Your task to perform on an android device: turn off wifi Image 0: 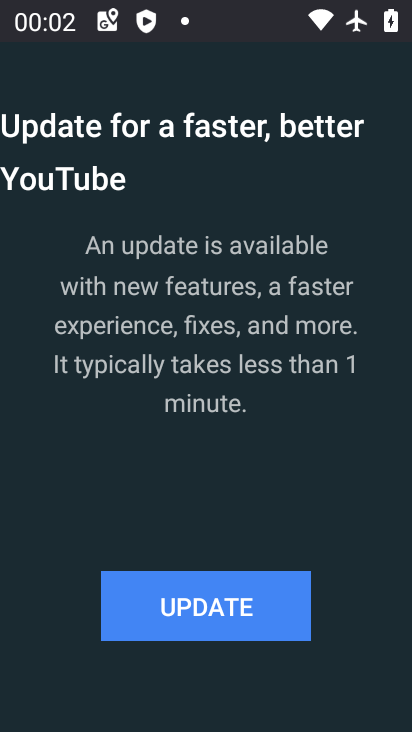
Step 0: press home button
Your task to perform on an android device: turn off wifi Image 1: 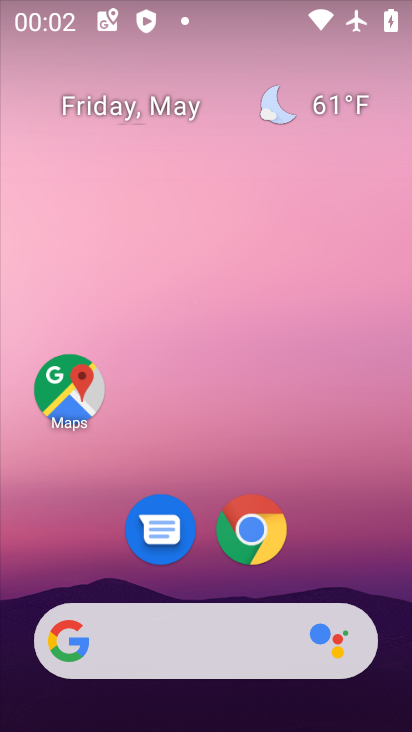
Step 1: drag from (342, 552) to (318, 104)
Your task to perform on an android device: turn off wifi Image 2: 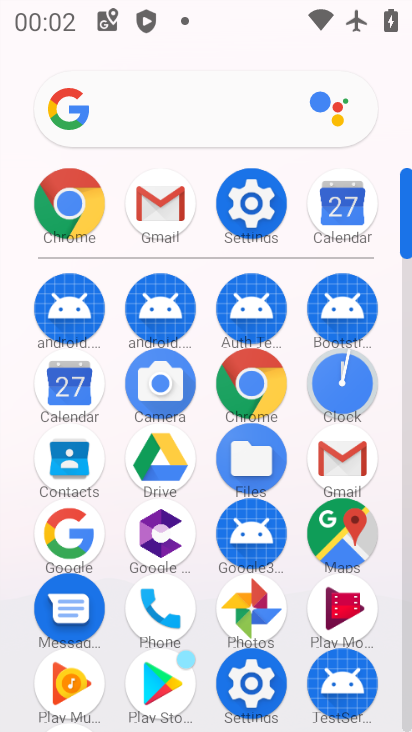
Step 2: click (261, 169)
Your task to perform on an android device: turn off wifi Image 3: 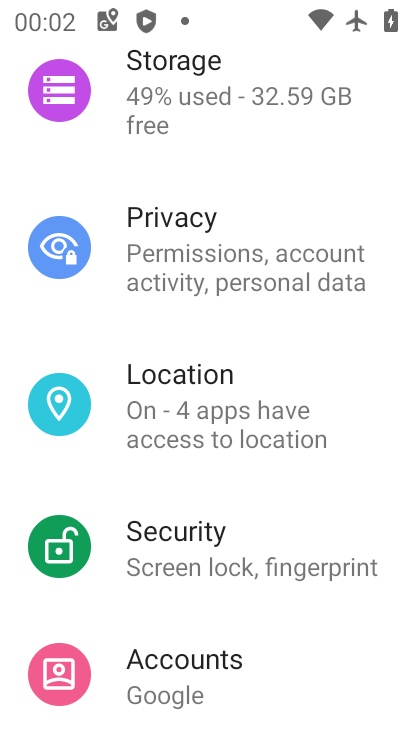
Step 3: drag from (243, 209) to (207, 680)
Your task to perform on an android device: turn off wifi Image 4: 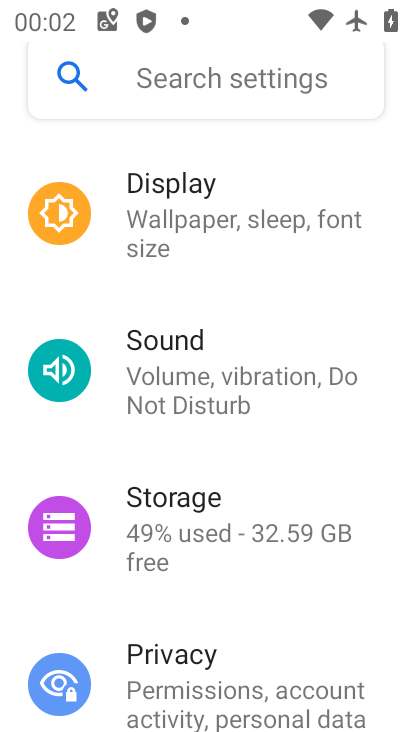
Step 4: drag from (240, 355) to (226, 670)
Your task to perform on an android device: turn off wifi Image 5: 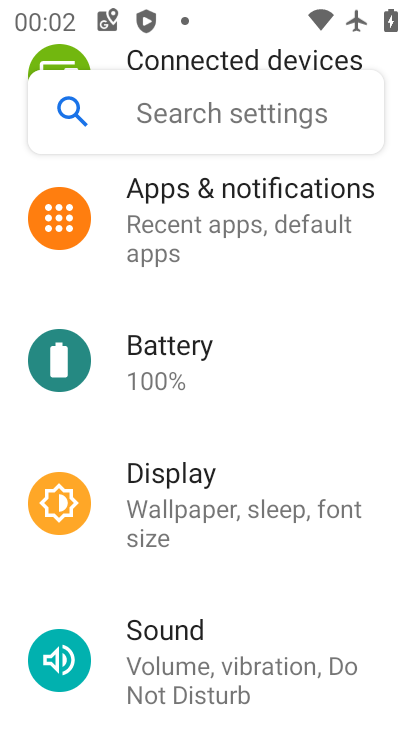
Step 5: drag from (208, 277) to (197, 714)
Your task to perform on an android device: turn off wifi Image 6: 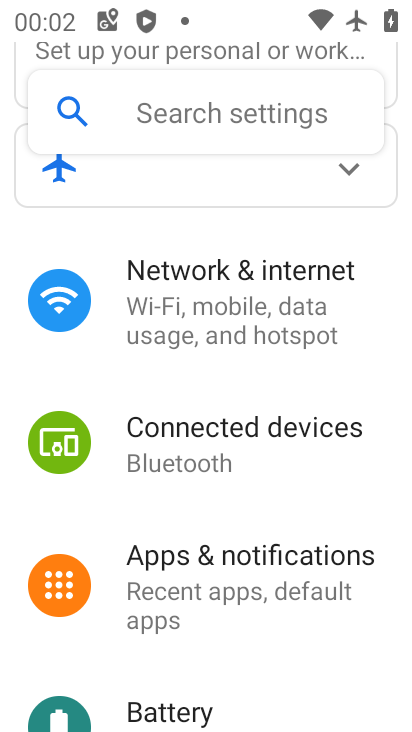
Step 6: click (223, 285)
Your task to perform on an android device: turn off wifi Image 7: 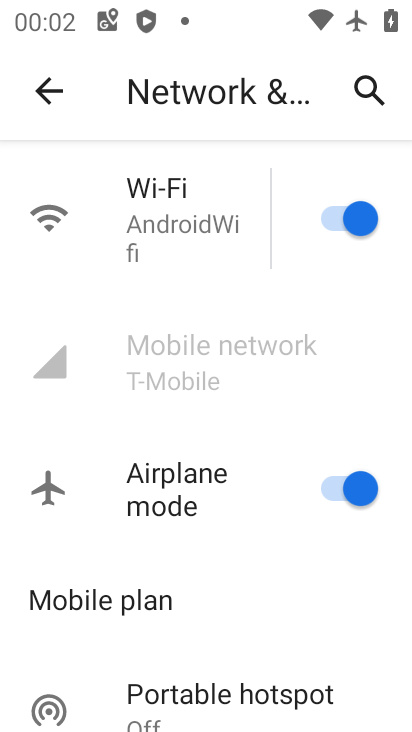
Step 7: task complete